Your task to perform on an android device: Go to Reddit.com Image 0: 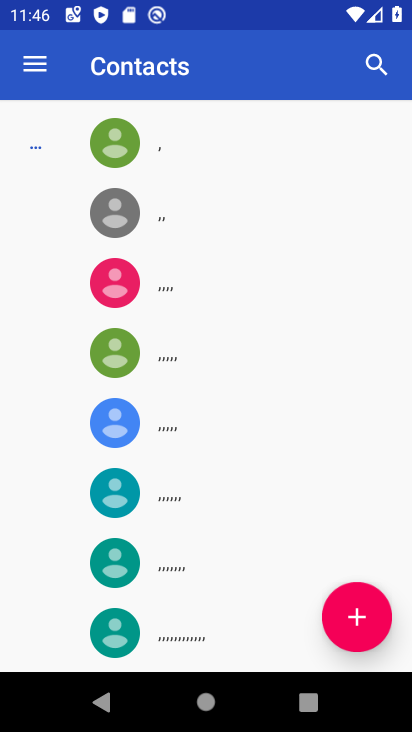
Step 0: press home button
Your task to perform on an android device: Go to Reddit.com Image 1: 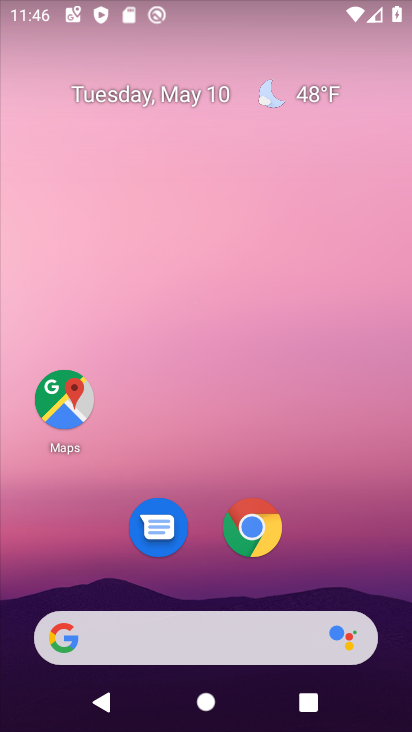
Step 1: click (254, 524)
Your task to perform on an android device: Go to Reddit.com Image 2: 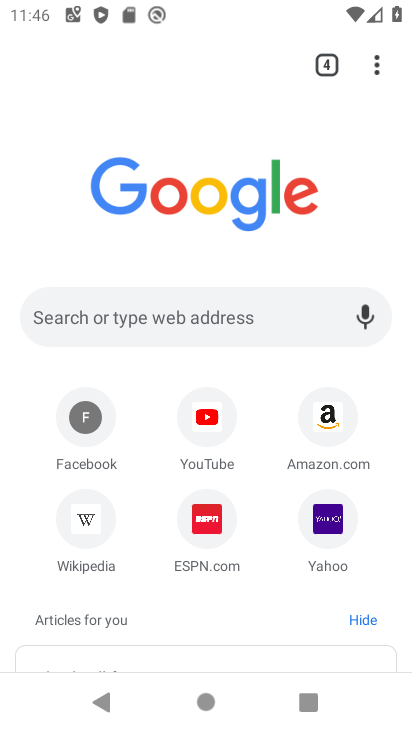
Step 2: click (218, 317)
Your task to perform on an android device: Go to Reddit.com Image 3: 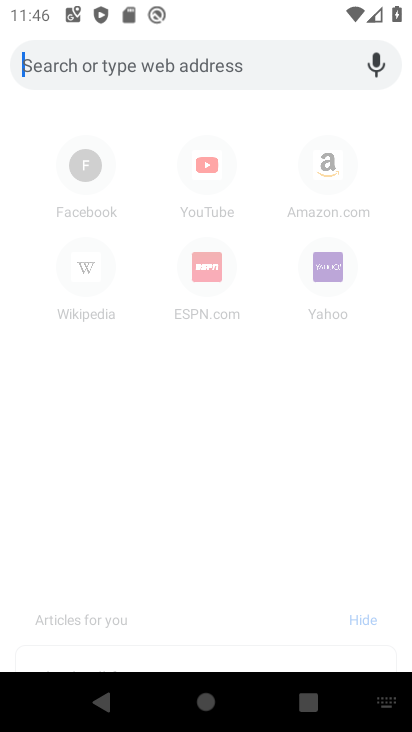
Step 3: type "Reddit.com"
Your task to perform on an android device: Go to Reddit.com Image 4: 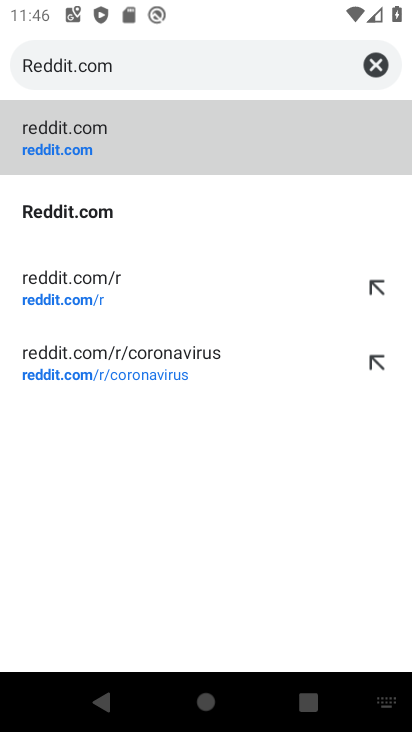
Step 4: click (41, 133)
Your task to perform on an android device: Go to Reddit.com Image 5: 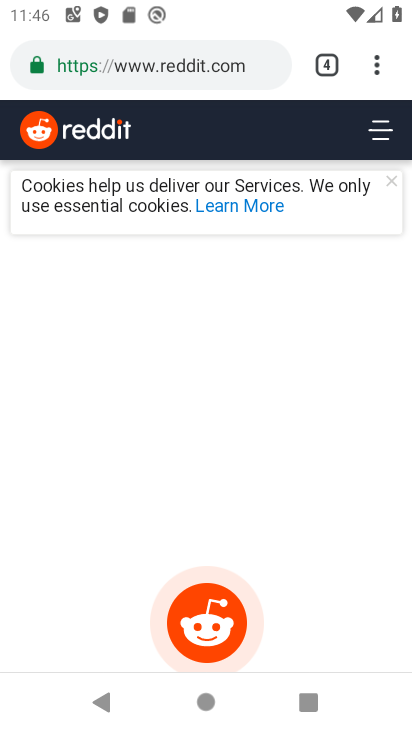
Step 5: task complete